Your task to perform on an android device: turn pop-ups on in chrome Image 0: 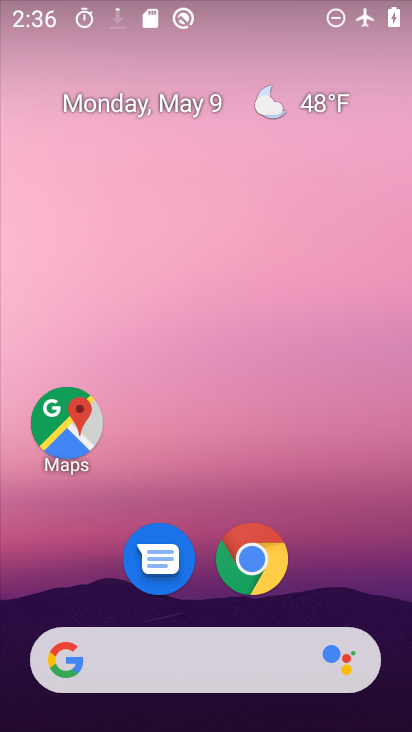
Step 0: drag from (195, 586) to (225, 226)
Your task to perform on an android device: turn pop-ups on in chrome Image 1: 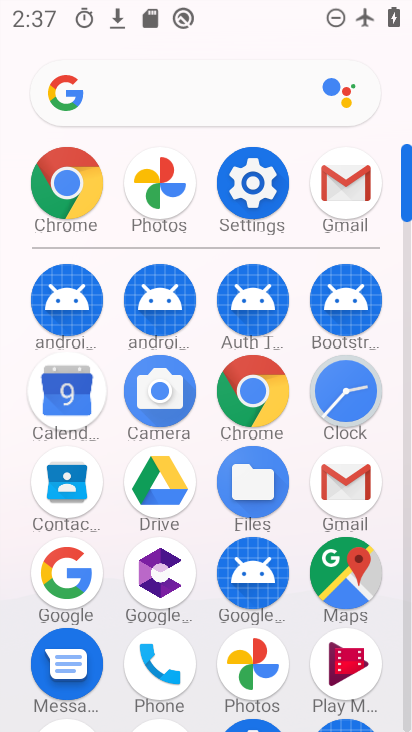
Step 1: click (256, 192)
Your task to perform on an android device: turn pop-ups on in chrome Image 2: 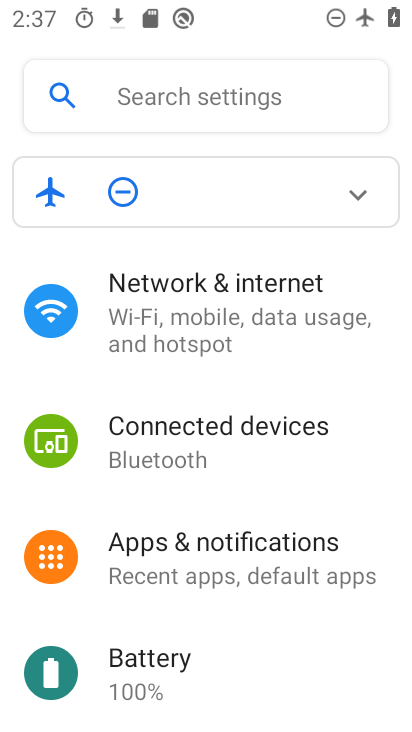
Step 2: drag from (218, 592) to (239, 213)
Your task to perform on an android device: turn pop-ups on in chrome Image 3: 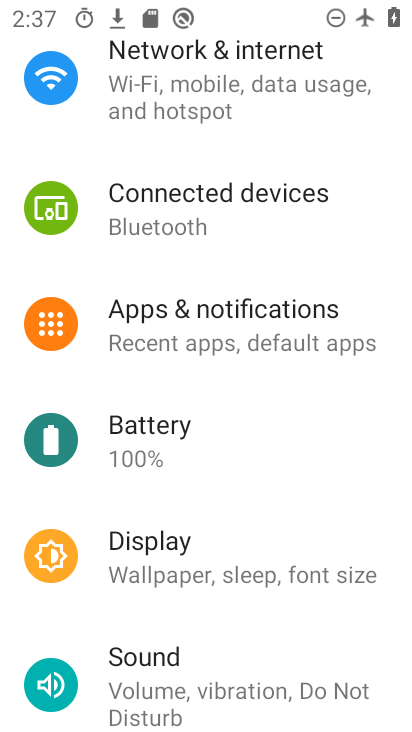
Step 3: drag from (242, 162) to (298, 710)
Your task to perform on an android device: turn pop-ups on in chrome Image 4: 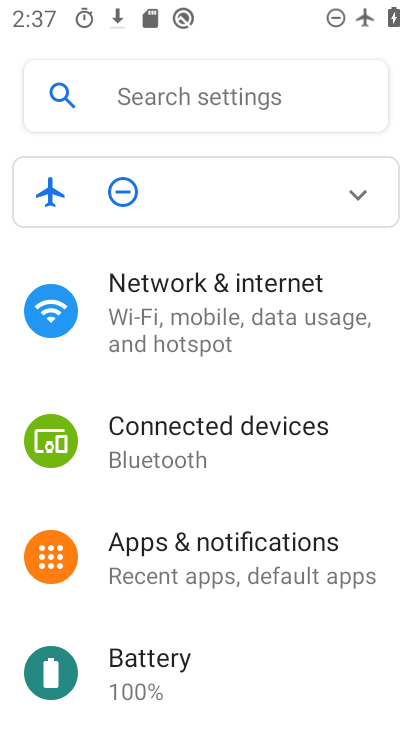
Step 4: click (197, 95)
Your task to perform on an android device: turn pop-ups on in chrome Image 5: 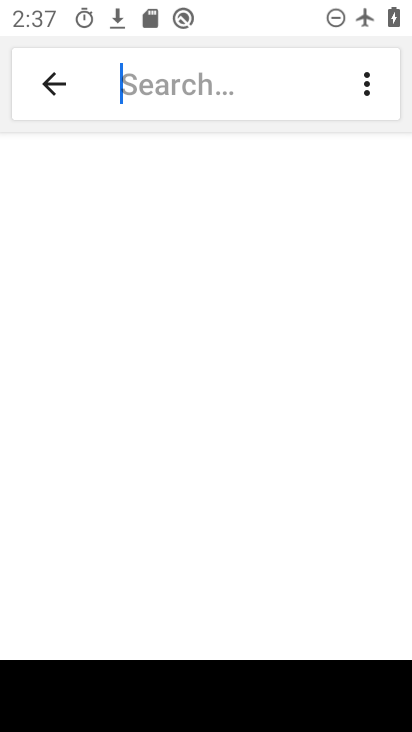
Step 5: click (42, 81)
Your task to perform on an android device: turn pop-ups on in chrome Image 6: 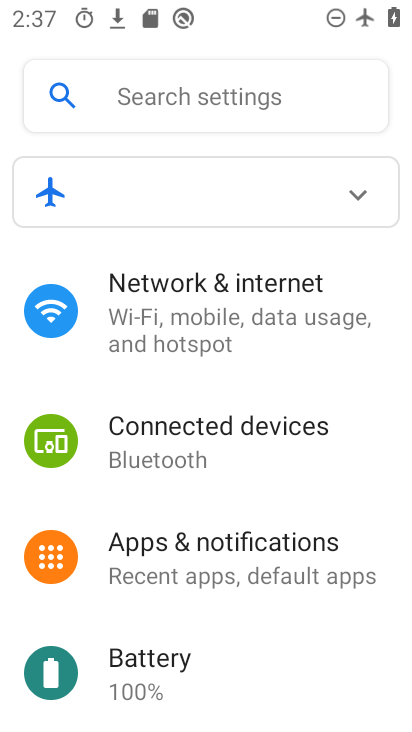
Step 6: press back button
Your task to perform on an android device: turn pop-ups on in chrome Image 7: 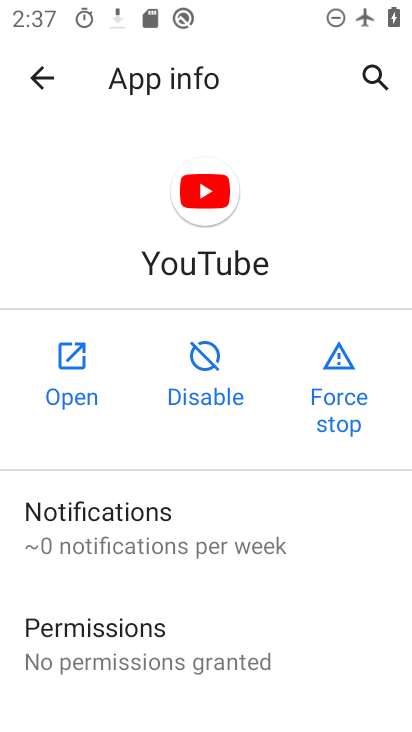
Step 7: press home button
Your task to perform on an android device: turn pop-ups on in chrome Image 8: 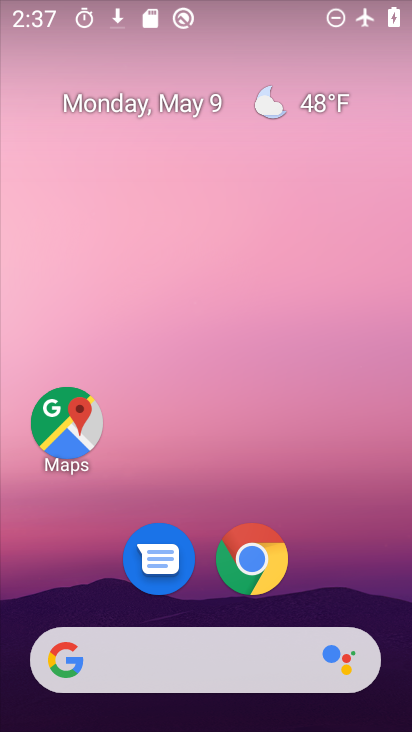
Step 8: drag from (212, 576) to (282, 143)
Your task to perform on an android device: turn pop-ups on in chrome Image 9: 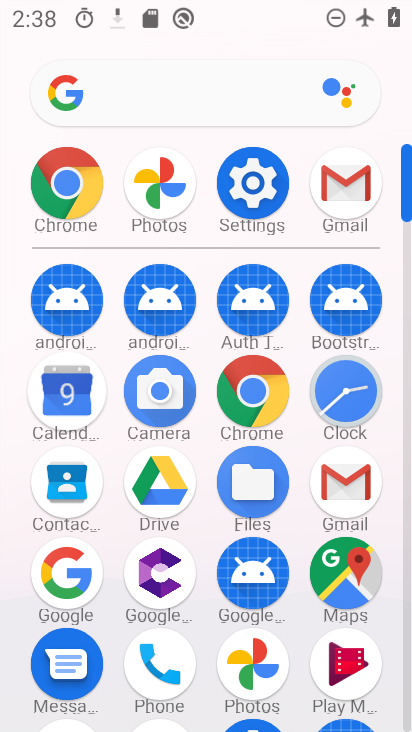
Step 9: click (242, 401)
Your task to perform on an android device: turn pop-ups on in chrome Image 10: 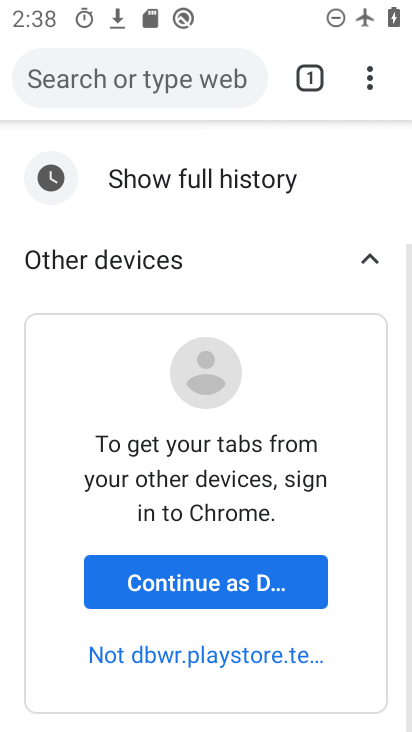
Step 10: drag from (362, 80) to (166, 645)
Your task to perform on an android device: turn pop-ups on in chrome Image 11: 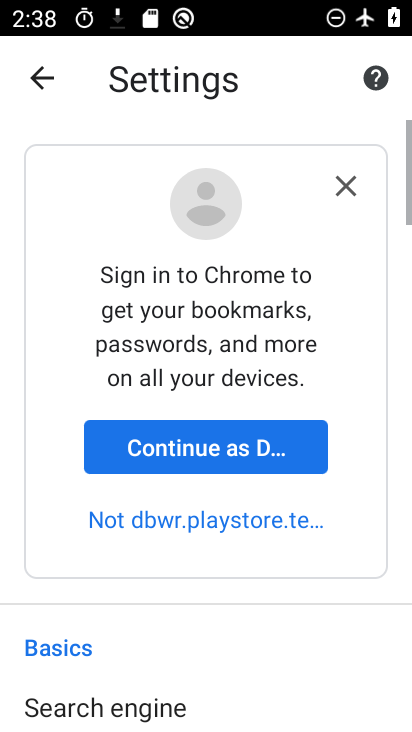
Step 11: drag from (194, 581) to (299, 41)
Your task to perform on an android device: turn pop-ups on in chrome Image 12: 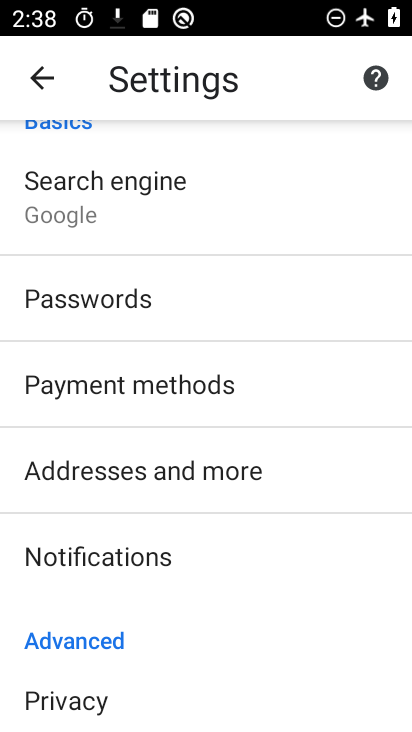
Step 12: drag from (223, 634) to (290, 209)
Your task to perform on an android device: turn pop-ups on in chrome Image 13: 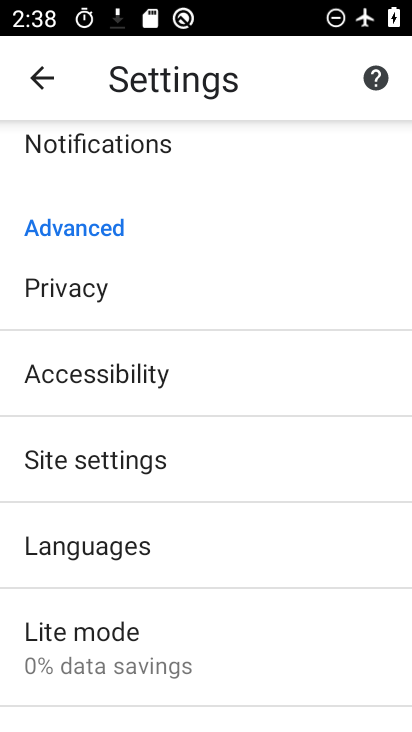
Step 13: drag from (198, 607) to (249, 357)
Your task to perform on an android device: turn pop-ups on in chrome Image 14: 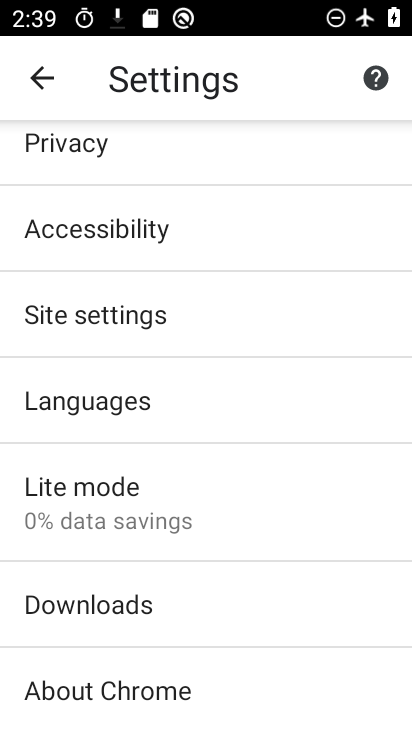
Step 14: click (129, 302)
Your task to perform on an android device: turn pop-ups on in chrome Image 15: 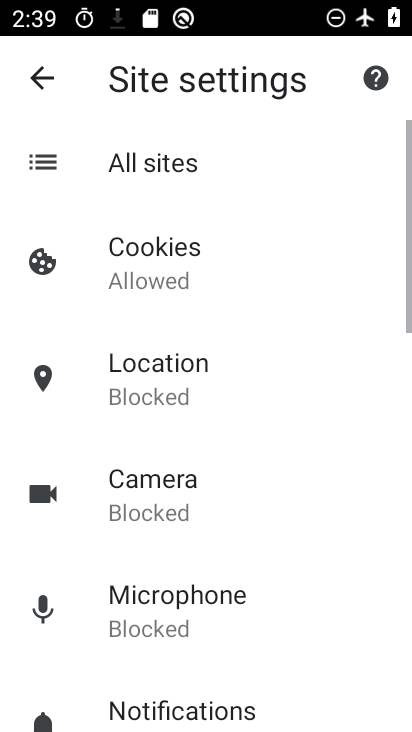
Step 15: drag from (188, 621) to (317, 184)
Your task to perform on an android device: turn pop-ups on in chrome Image 16: 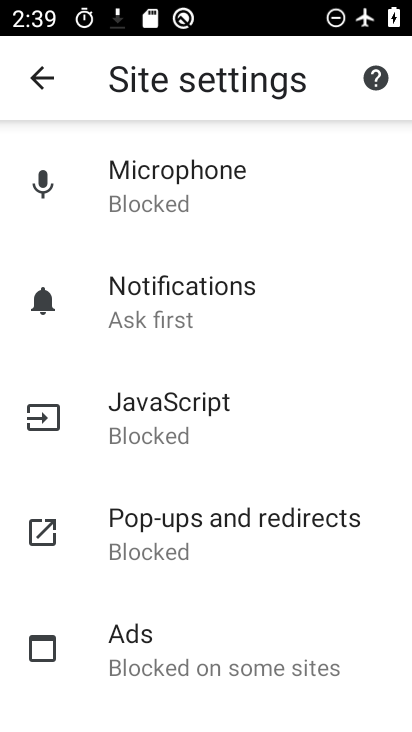
Step 16: click (194, 546)
Your task to perform on an android device: turn pop-ups on in chrome Image 17: 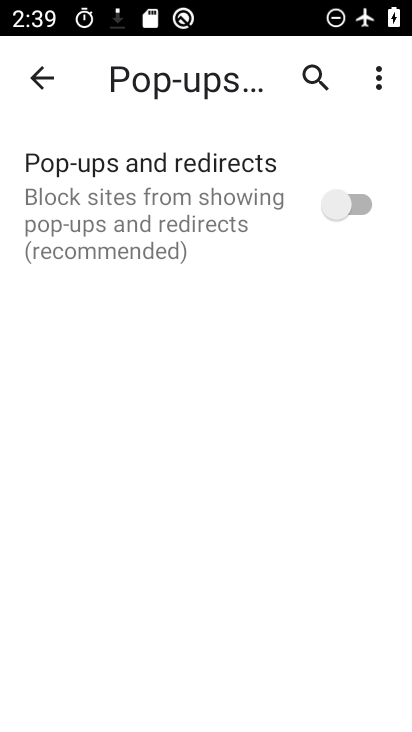
Step 17: click (322, 198)
Your task to perform on an android device: turn pop-ups on in chrome Image 18: 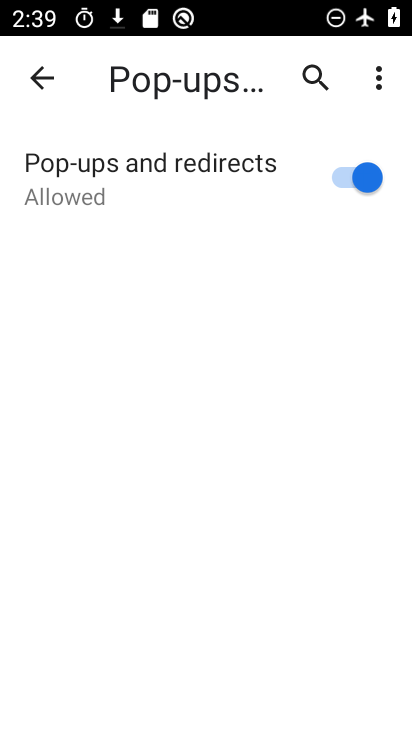
Step 18: task complete